Your task to perform on an android device: What's the weather going to be this weekend? Image 0: 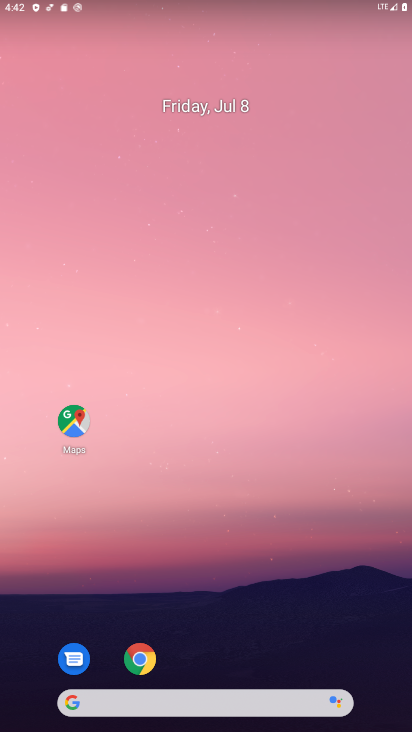
Step 0: click (155, 654)
Your task to perform on an android device: What's the weather going to be this weekend? Image 1: 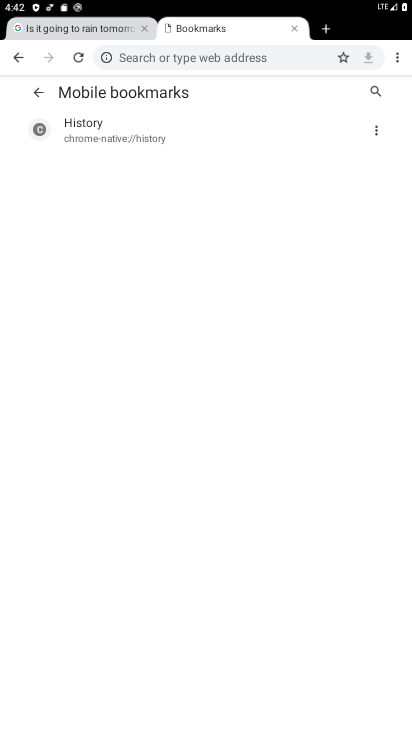
Step 1: click (302, 61)
Your task to perform on an android device: What's the weather going to be this weekend? Image 2: 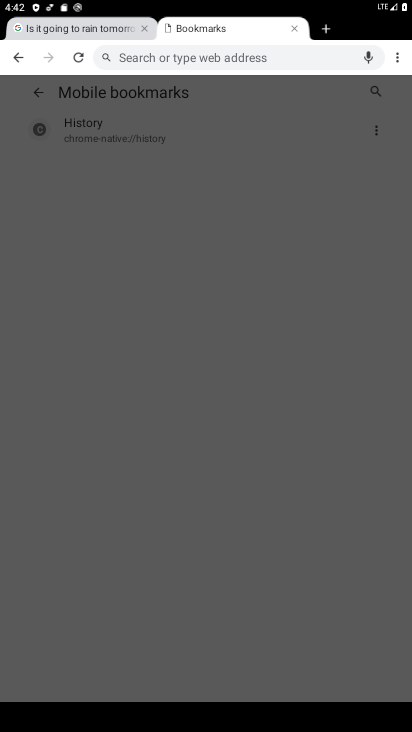
Step 2: type " What's the weather going to be this weekend?"
Your task to perform on an android device: What's the weather going to be this weekend? Image 3: 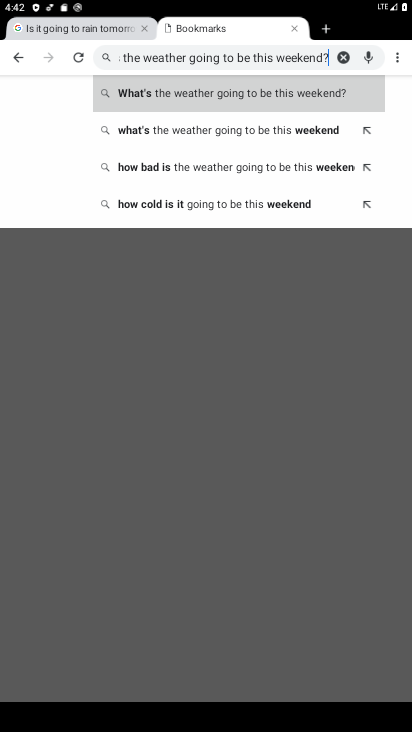
Step 3: type ""
Your task to perform on an android device: What's the weather going to be this weekend? Image 4: 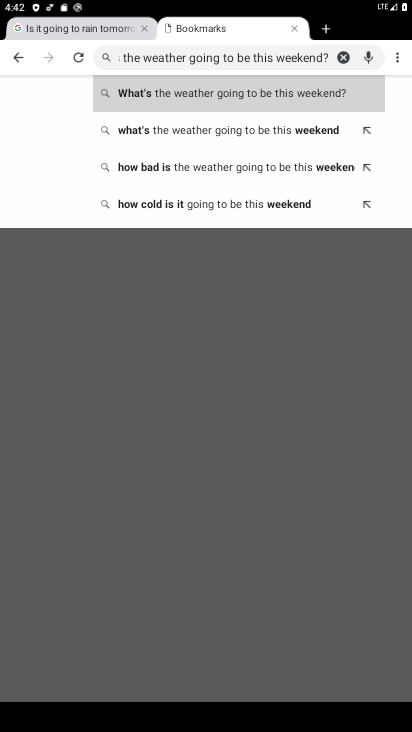
Step 4: click (289, 94)
Your task to perform on an android device: What's the weather going to be this weekend? Image 5: 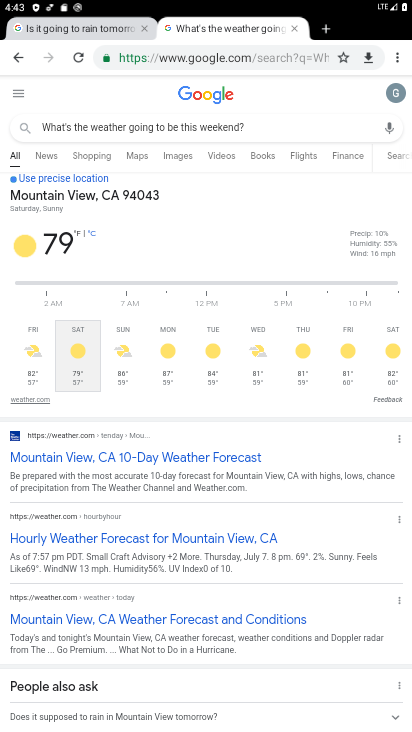
Step 5: task complete